Your task to perform on an android device: Open calendar and show me the fourth week of next month Image 0: 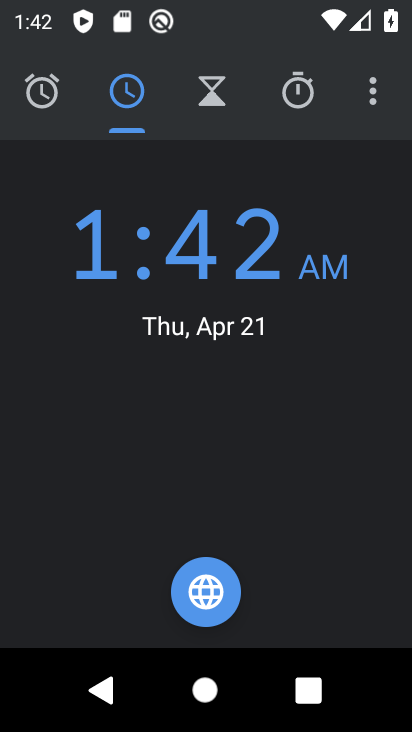
Step 0: drag from (308, 640) to (313, 317)
Your task to perform on an android device: Open calendar and show me the fourth week of next month Image 1: 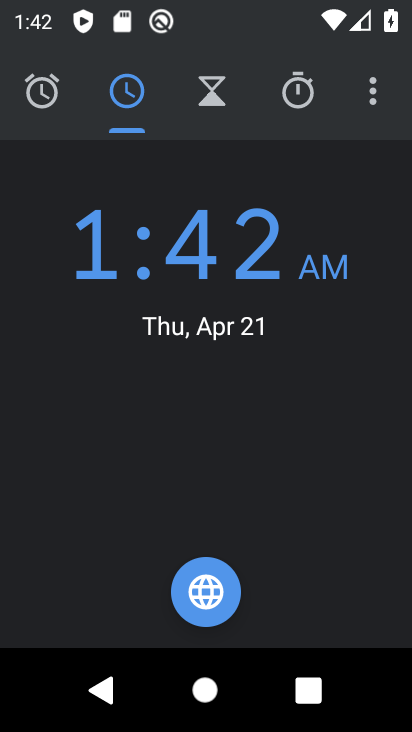
Step 1: press home button
Your task to perform on an android device: Open calendar and show me the fourth week of next month Image 2: 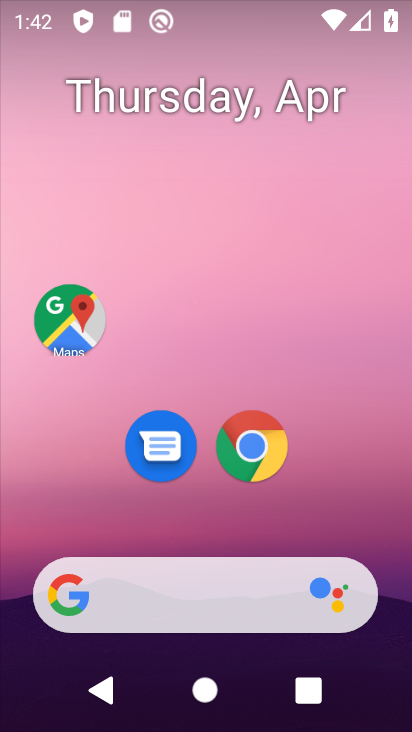
Step 2: drag from (279, 417) to (235, 219)
Your task to perform on an android device: Open calendar and show me the fourth week of next month Image 3: 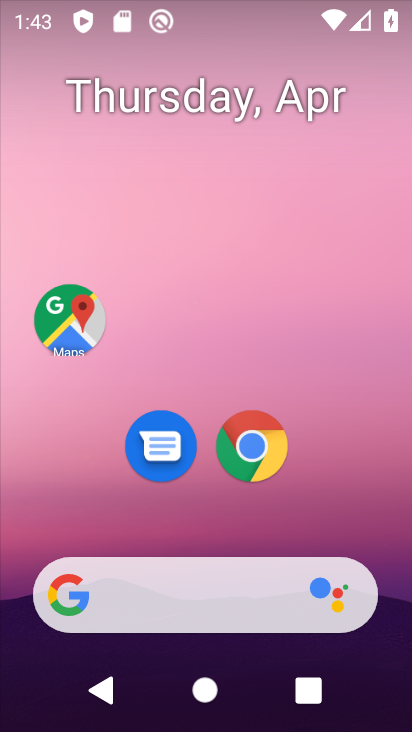
Step 3: drag from (263, 511) to (244, 223)
Your task to perform on an android device: Open calendar and show me the fourth week of next month Image 4: 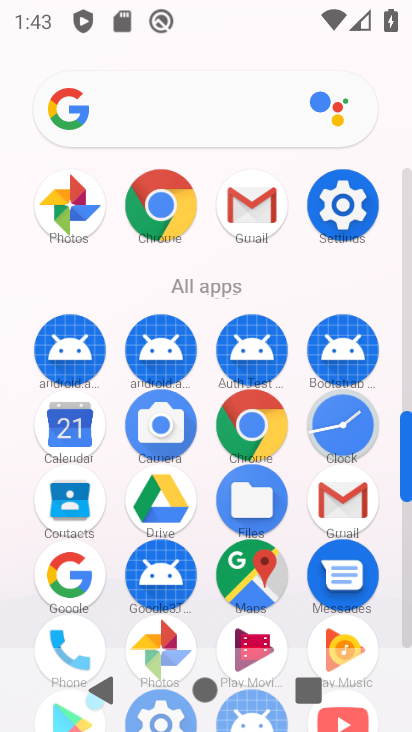
Step 4: click (81, 443)
Your task to perform on an android device: Open calendar and show me the fourth week of next month Image 5: 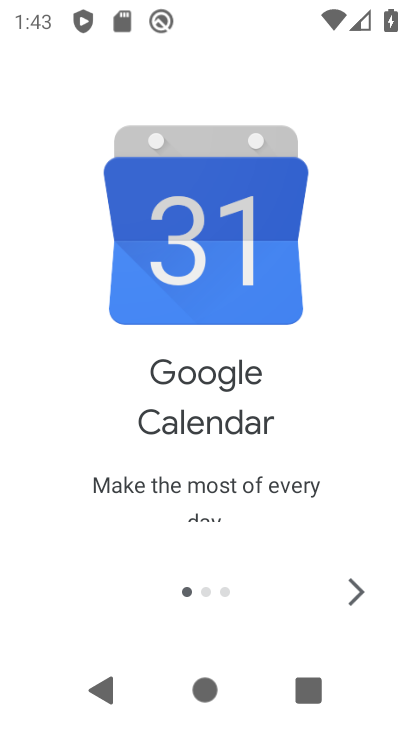
Step 5: click (321, 567)
Your task to perform on an android device: Open calendar and show me the fourth week of next month Image 6: 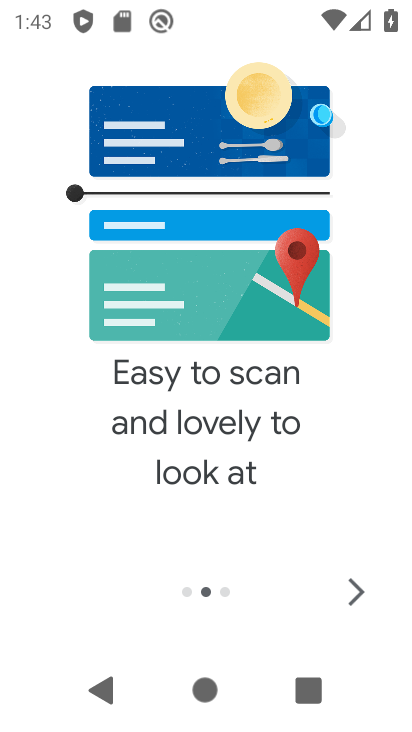
Step 6: click (349, 591)
Your task to perform on an android device: Open calendar and show me the fourth week of next month Image 7: 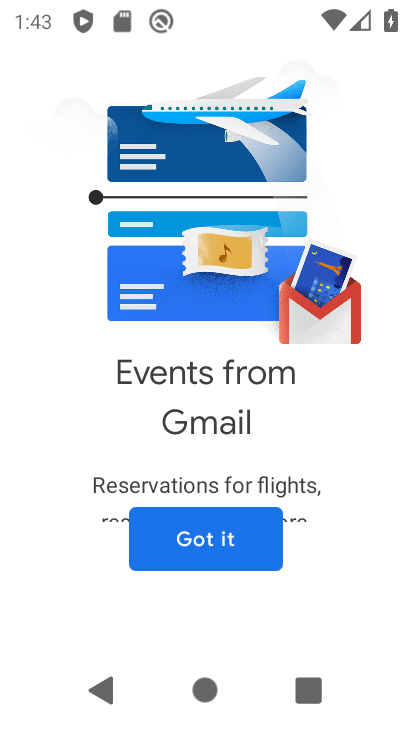
Step 7: click (227, 525)
Your task to perform on an android device: Open calendar and show me the fourth week of next month Image 8: 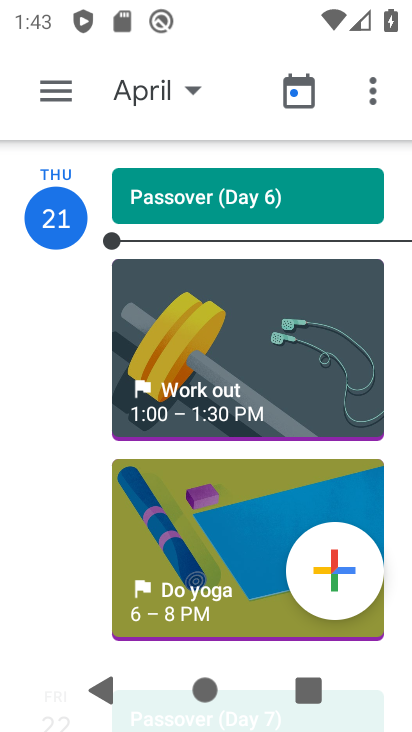
Step 8: click (56, 101)
Your task to perform on an android device: Open calendar and show me the fourth week of next month Image 9: 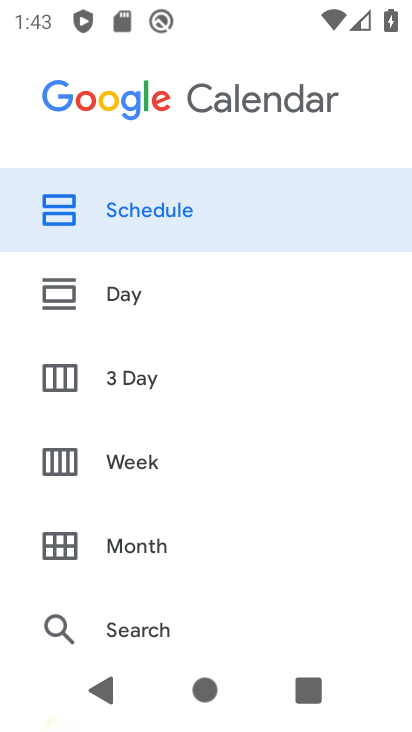
Step 9: click (119, 468)
Your task to perform on an android device: Open calendar and show me the fourth week of next month Image 10: 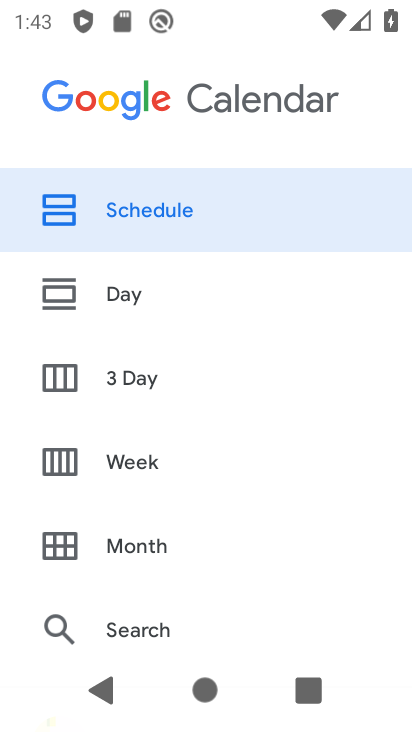
Step 10: click (123, 477)
Your task to perform on an android device: Open calendar and show me the fourth week of next month Image 11: 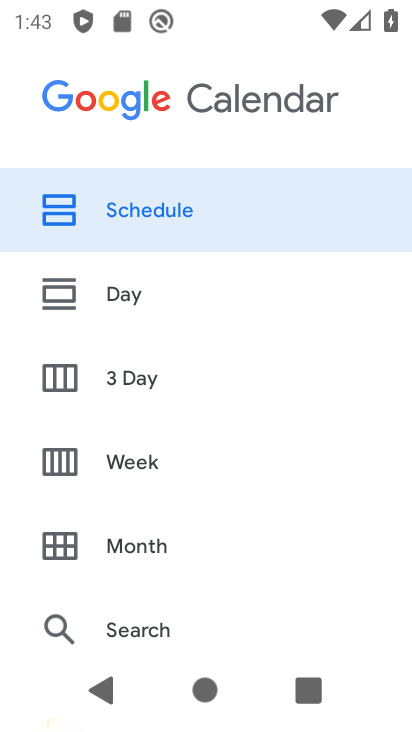
Step 11: click (117, 461)
Your task to perform on an android device: Open calendar and show me the fourth week of next month Image 12: 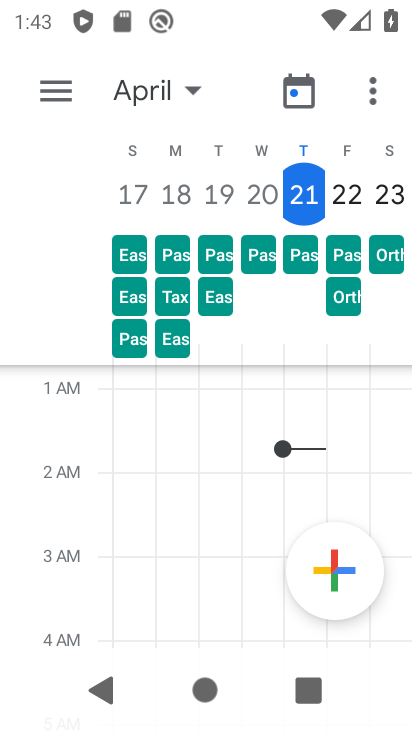
Step 12: click (142, 105)
Your task to perform on an android device: Open calendar and show me the fourth week of next month Image 13: 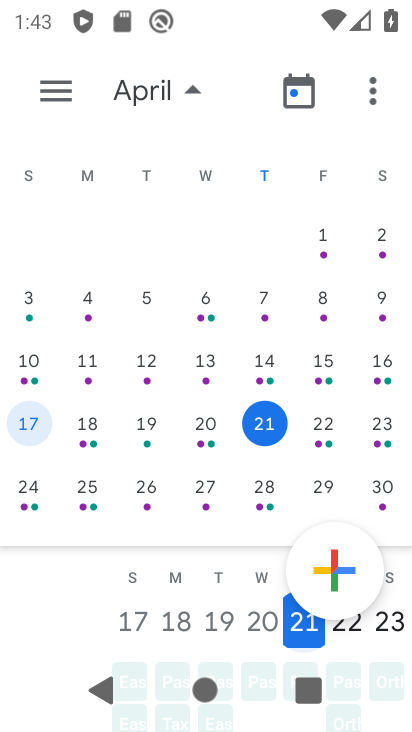
Step 13: drag from (343, 348) to (17, 414)
Your task to perform on an android device: Open calendar and show me the fourth week of next month Image 14: 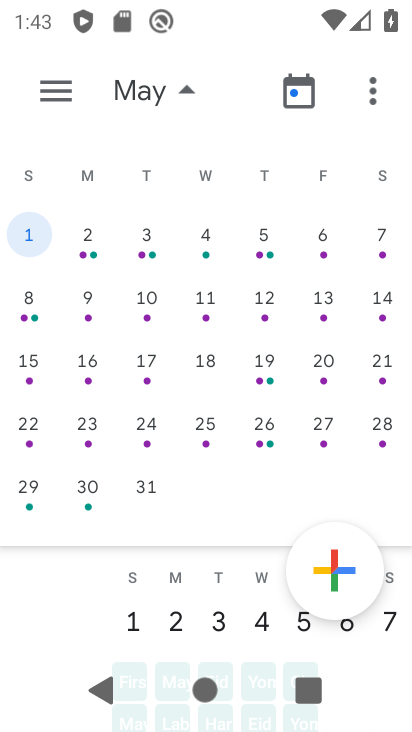
Step 14: click (28, 417)
Your task to perform on an android device: Open calendar and show me the fourth week of next month Image 15: 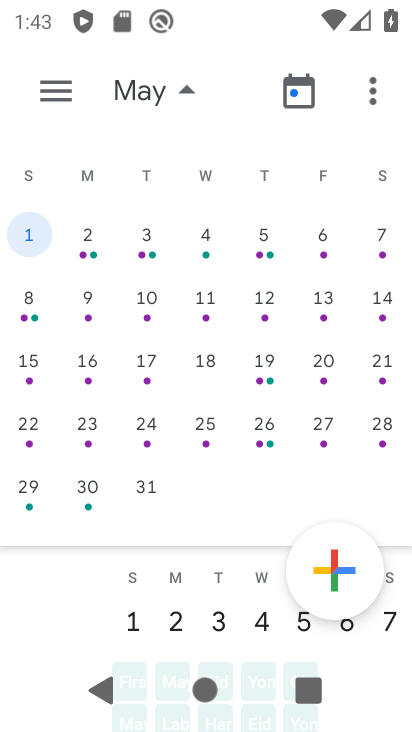
Step 15: click (30, 427)
Your task to perform on an android device: Open calendar and show me the fourth week of next month Image 16: 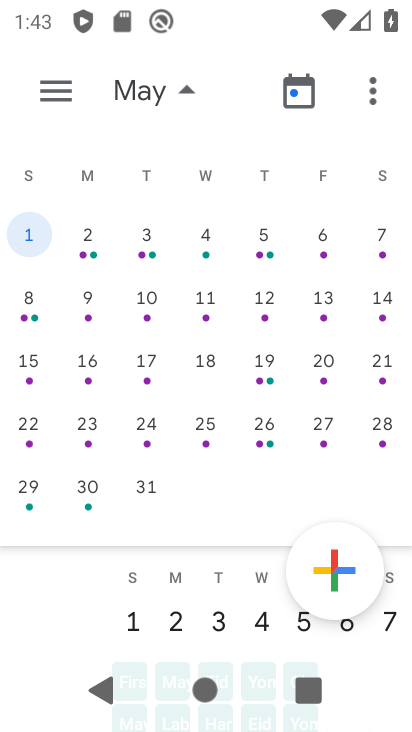
Step 16: click (37, 425)
Your task to perform on an android device: Open calendar and show me the fourth week of next month Image 17: 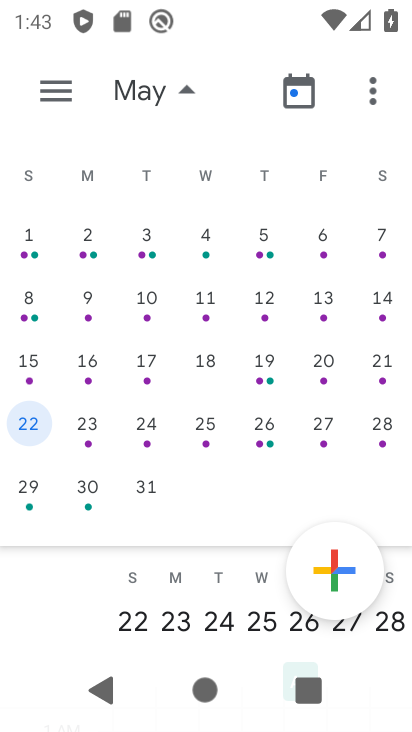
Step 17: task complete